Your task to perform on an android device: Do I have any events today? Image 0: 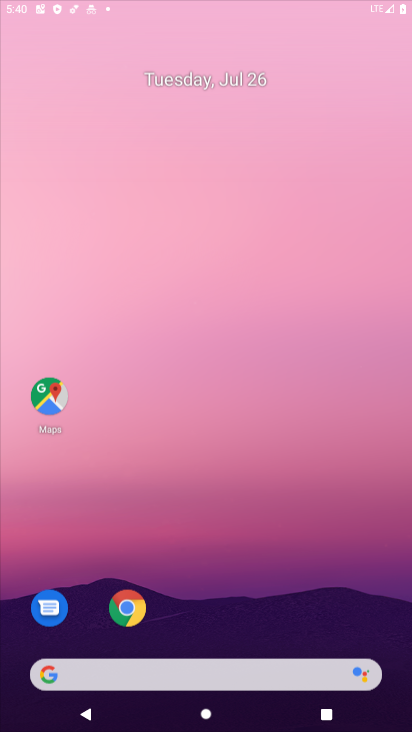
Step 0: press home button
Your task to perform on an android device: Do I have any events today? Image 1: 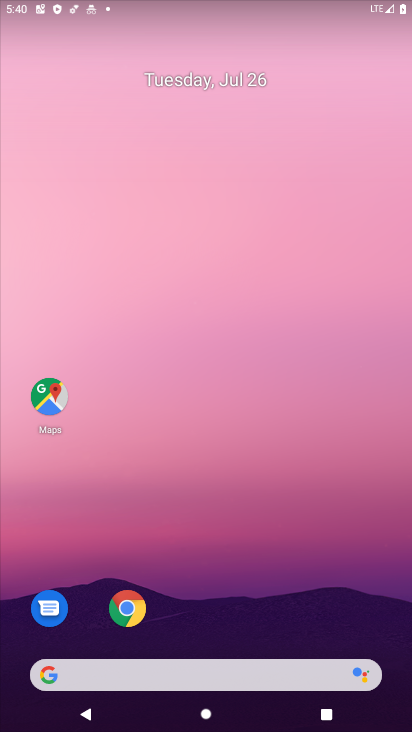
Step 1: drag from (199, 644) to (176, 0)
Your task to perform on an android device: Do I have any events today? Image 2: 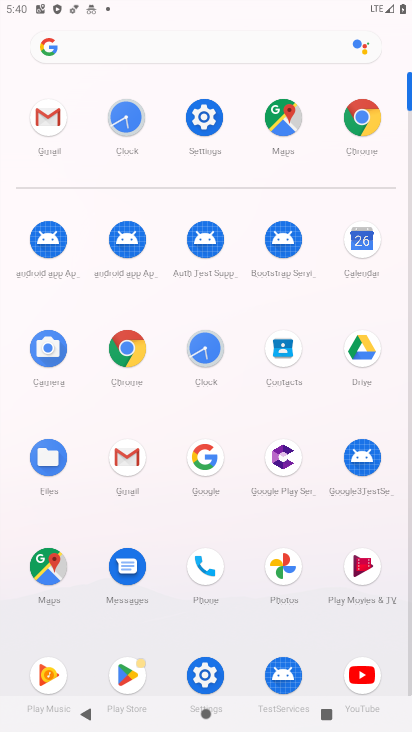
Step 2: click (351, 239)
Your task to perform on an android device: Do I have any events today? Image 3: 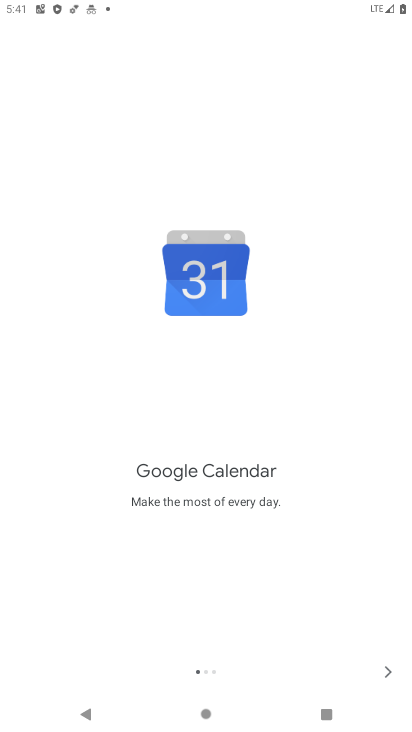
Step 3: click (391, 674)
Your task to perform on an android device: Do I have any events today? Image 4: 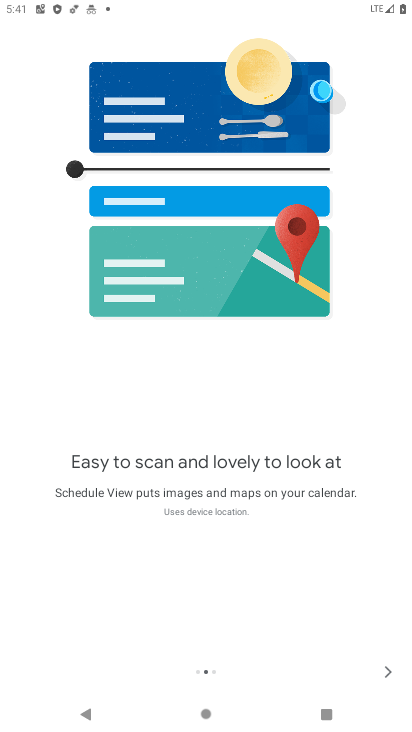
Step 4: click (391, 674)
Your task to perform on an android device: Do I have any events today? Image 5: 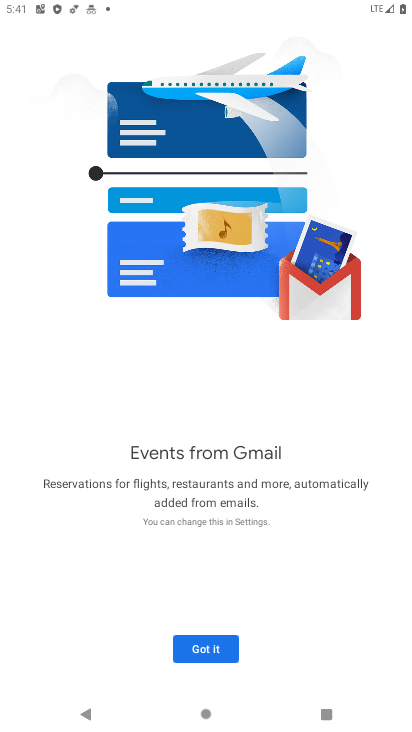
Step 5: click (225, 657)
Your task to perform on an android device: Do I have any events today? Image 6: 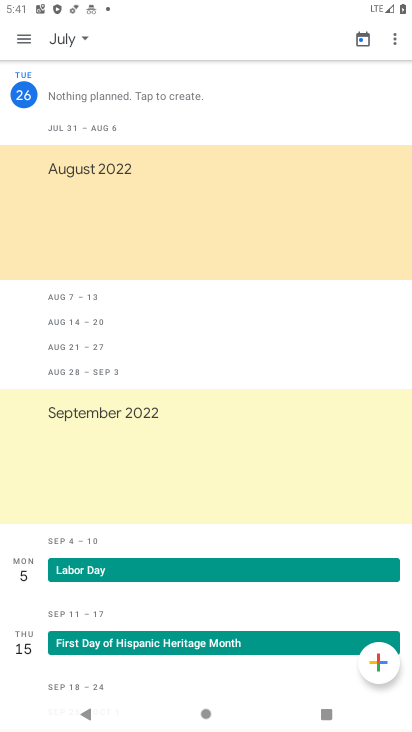
Step 6: click (68, 38)
Your task to perform on an android device: Do I have any events today? Image 7: 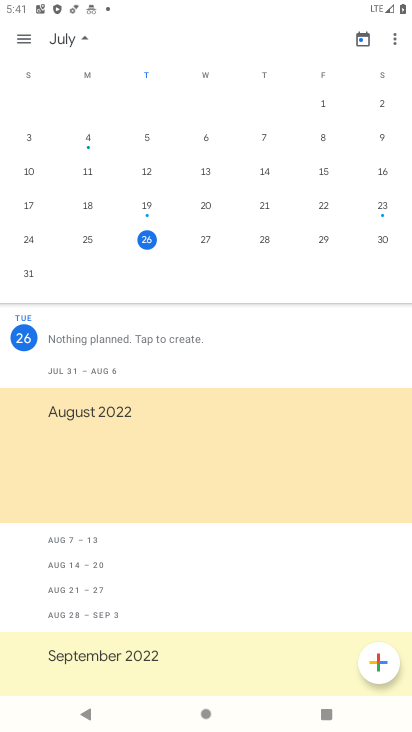
Step 7: click (148, 236)
Your task to perform on an android device: Do I have any events today? Image 8: 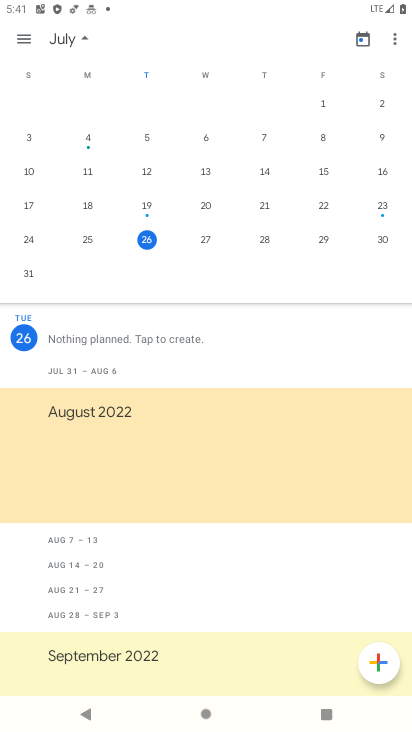
Step 8: task complete